Your task to perform on an android device: open device folders in google photos Image 0: 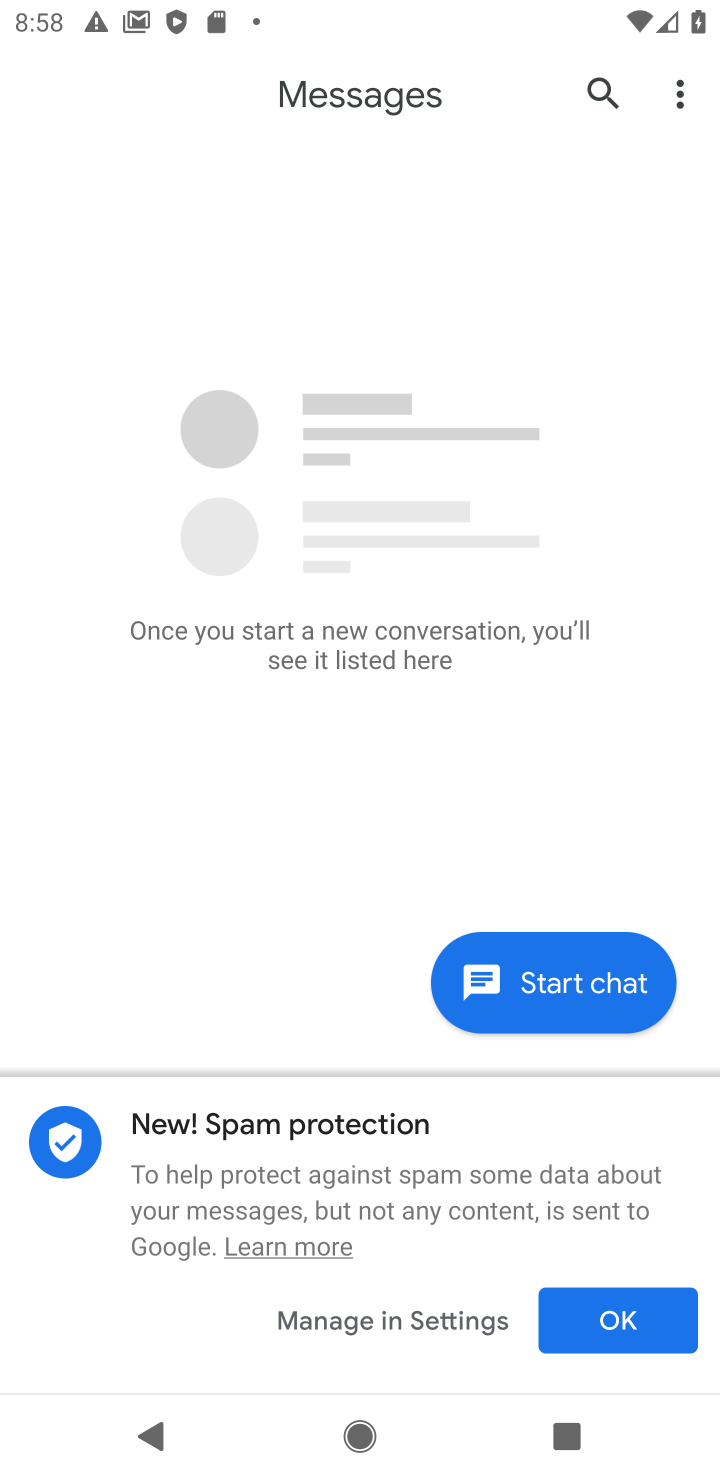
Step 0: press back button
Your task to perform on an android device: open device folders in google photos Image 1: 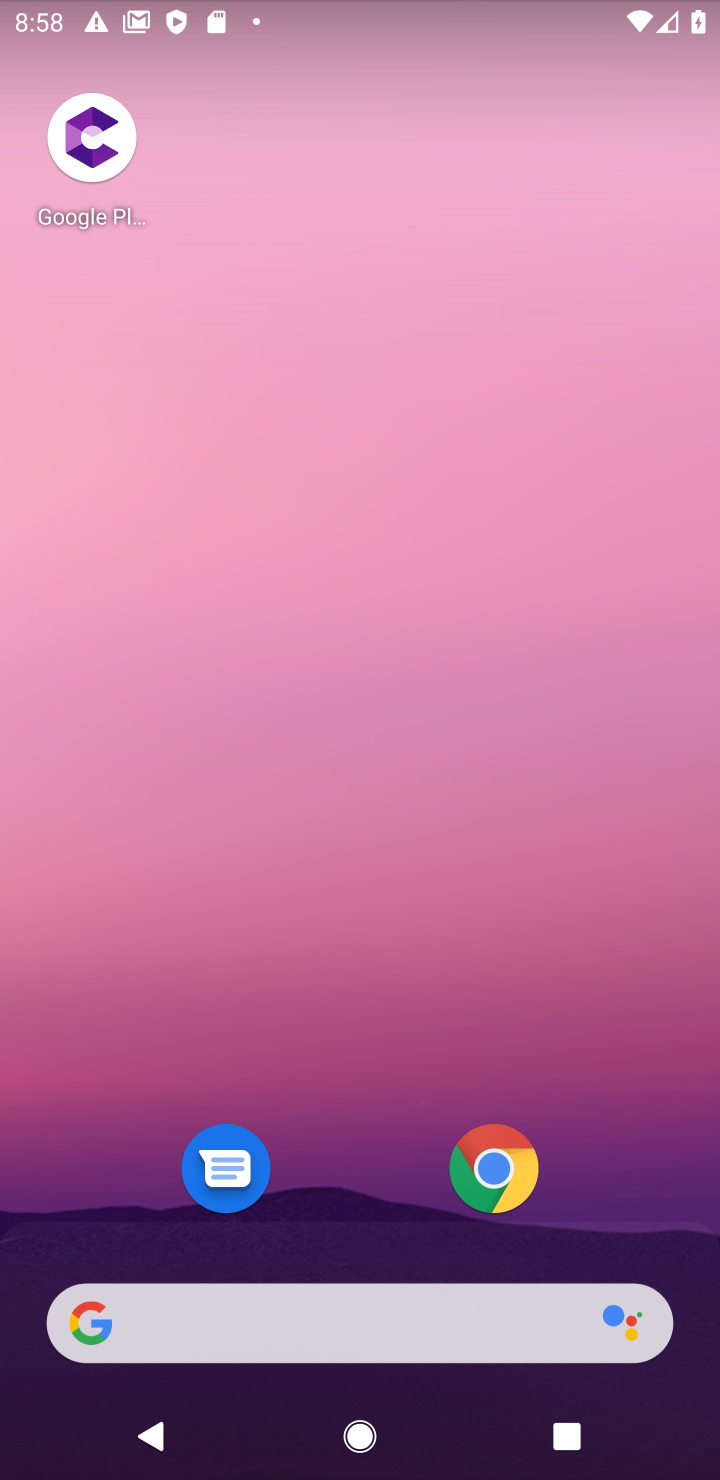
Step 1: press back button
Your task to perform on an android device: open device folders in google photos Image 2: 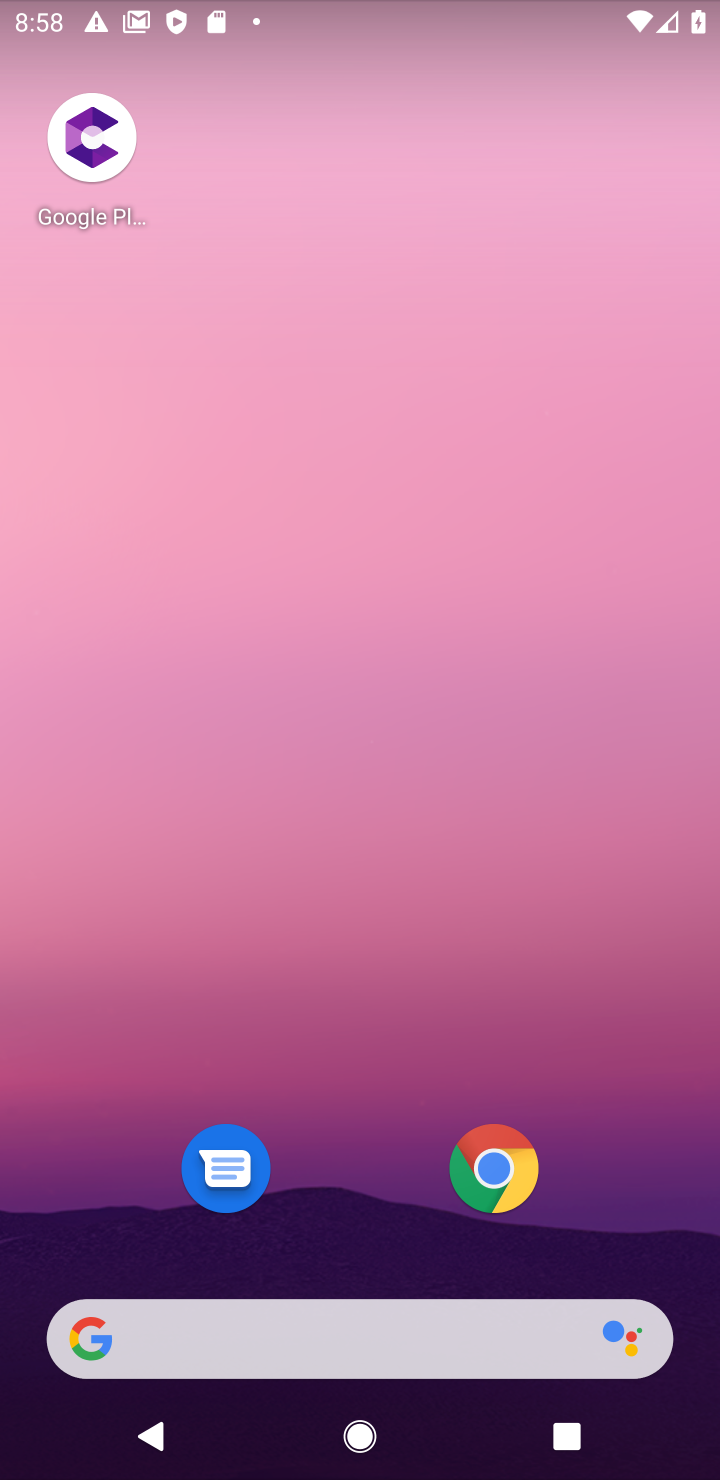
Step 2: drag from (652, 1194) to (399, 217)
Your task to perform on an android device: open device folders in google photos Image 3: 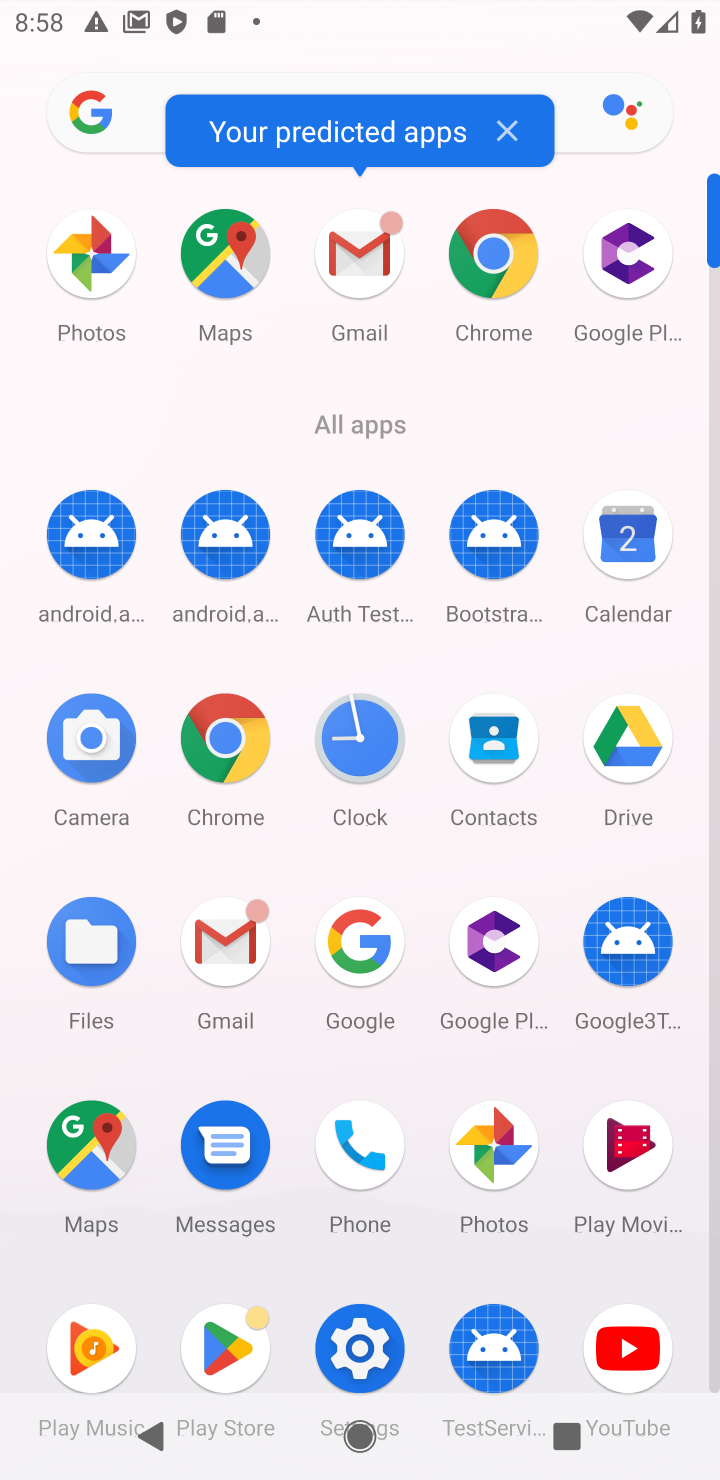
Step 3: click (92, 317)
Your task to perform on an android device: open device folders in google photos Image 4: 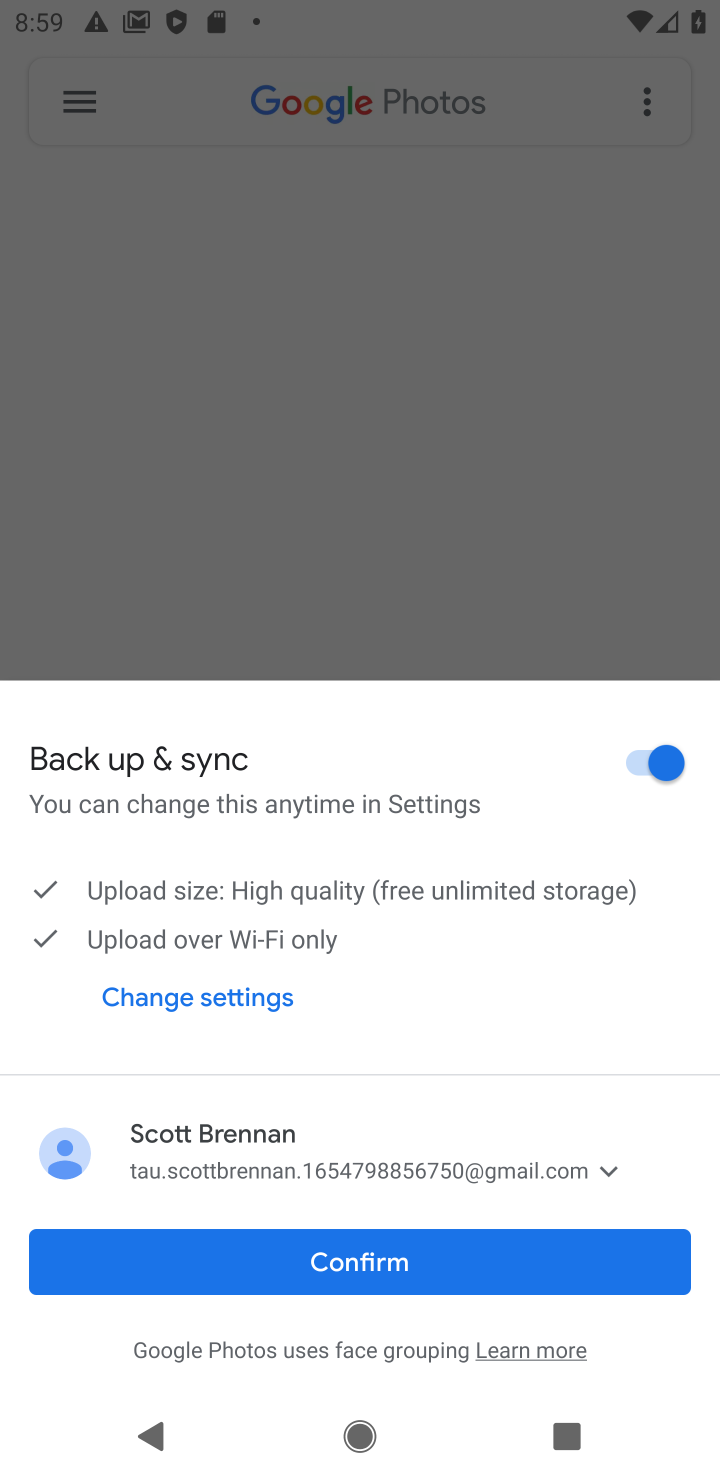
Step 4: click (534, 1267)
Your task to perform on an android device: open device folders in google photos Image 5: 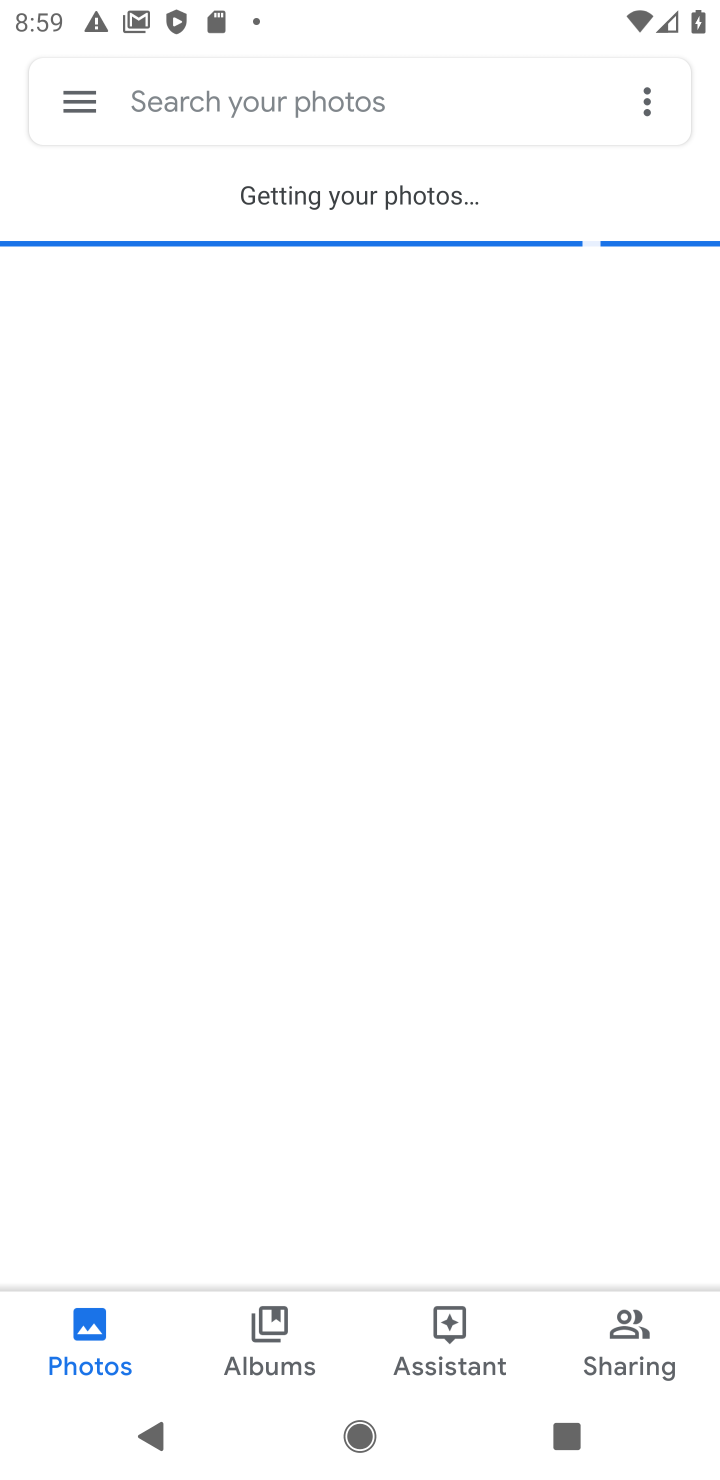
Step 5: click (48, 109)
Your task to perform on an android device: open device folders in google photos Image 6: 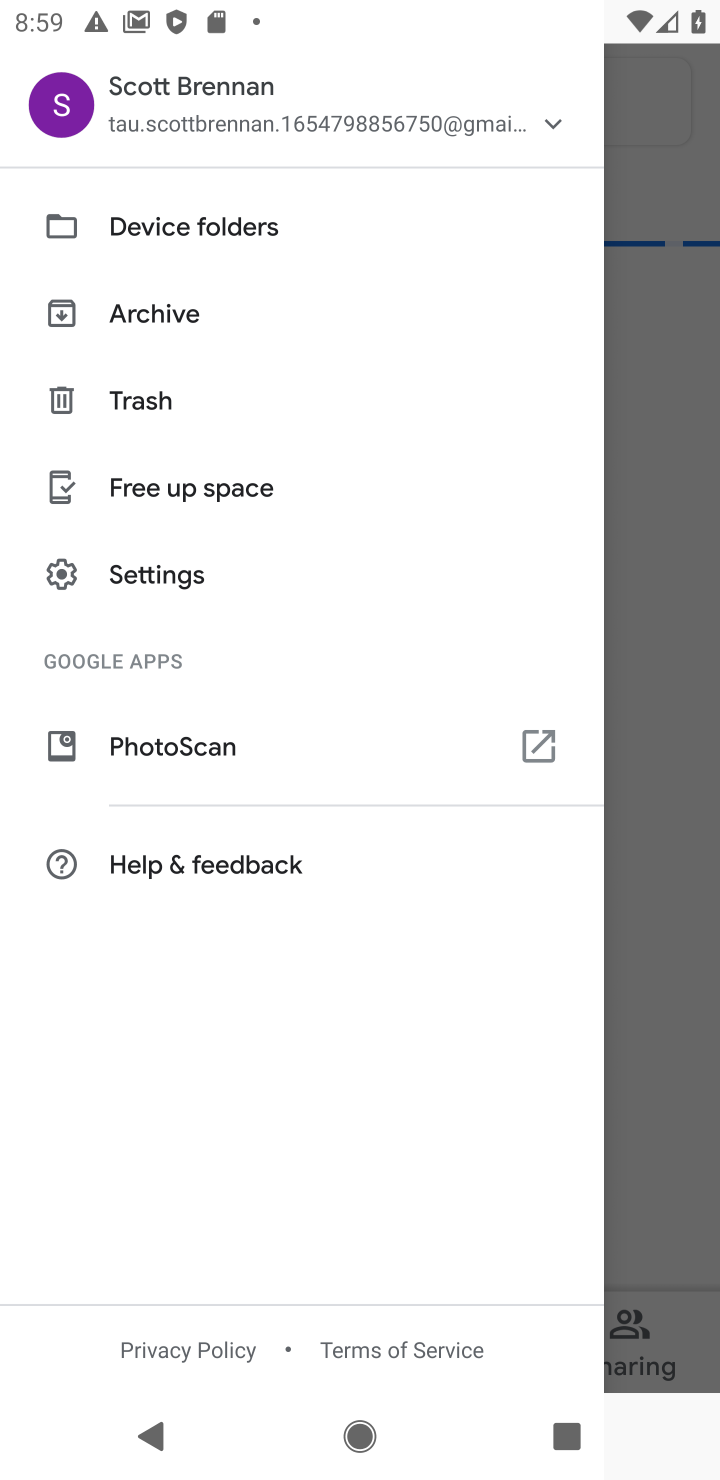
Step 6: click (288, 233)
Your task to perform on an android device: open device folders in google photos Image 7: 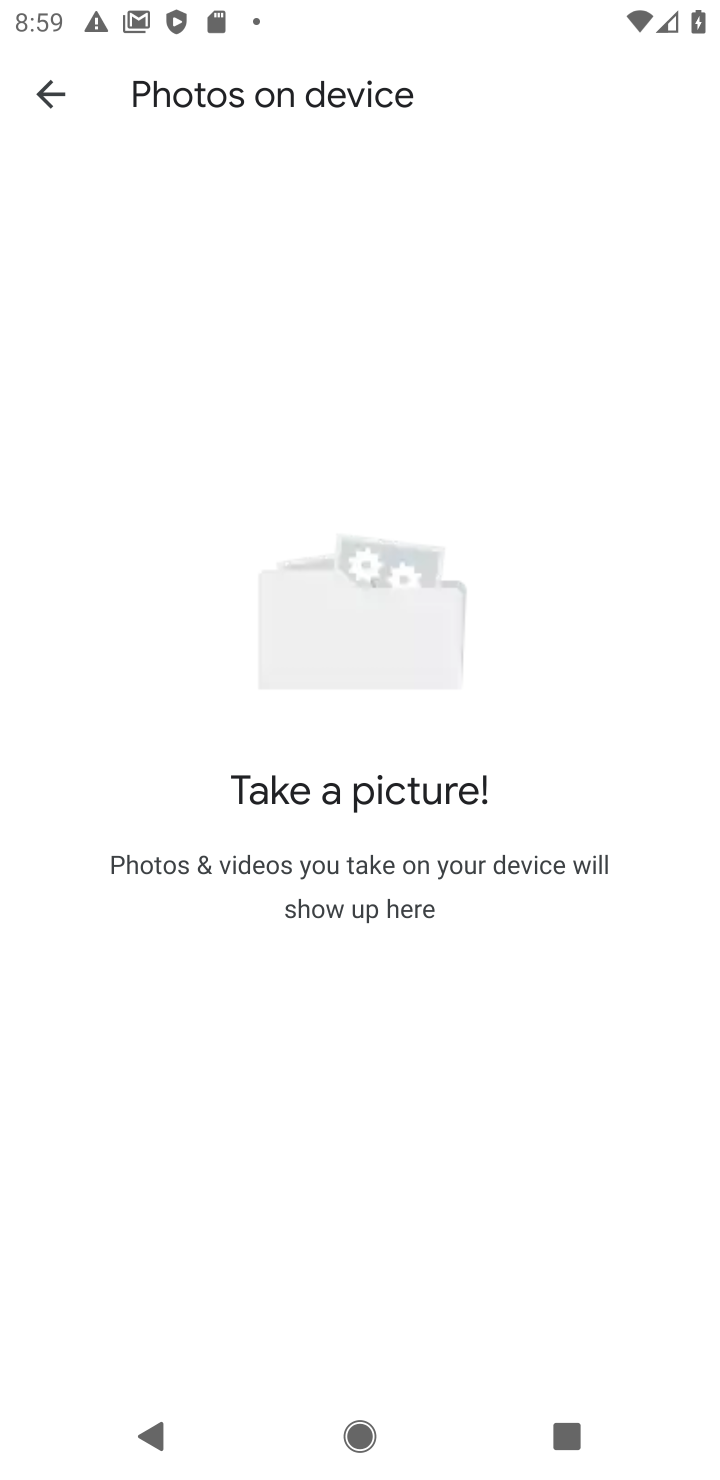
Step 7: task complete